Your task to perform on an android device: turn off sleep mode Image 0: 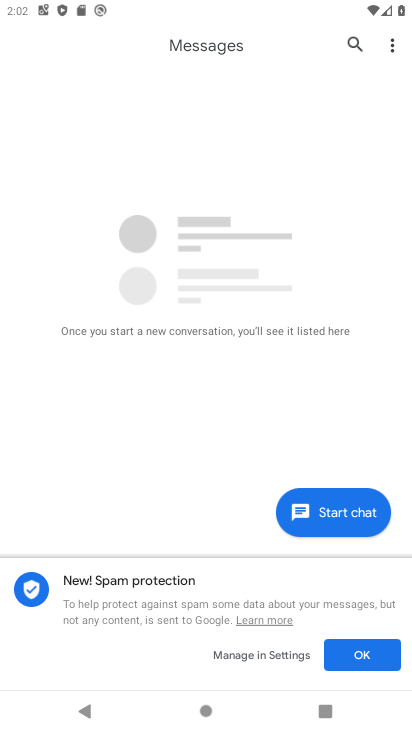
Step 0: press home button
Your task to perform on an android device: turn off sleep mode Image 1: 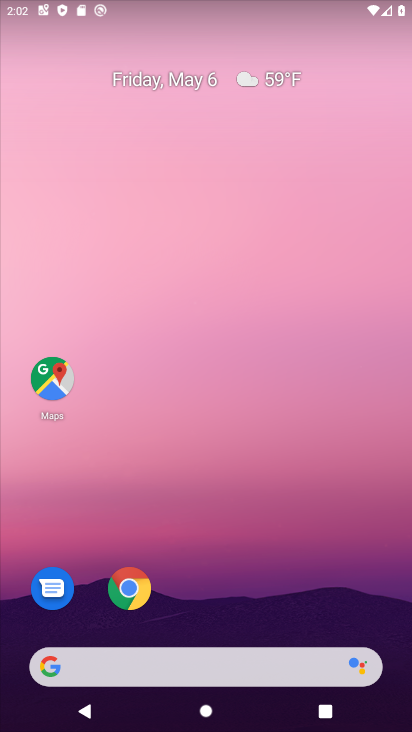
Step 1: drag from (261, 628) to (234, 79)
Your task to perform on an android device: turn off sleep mode Image 2: 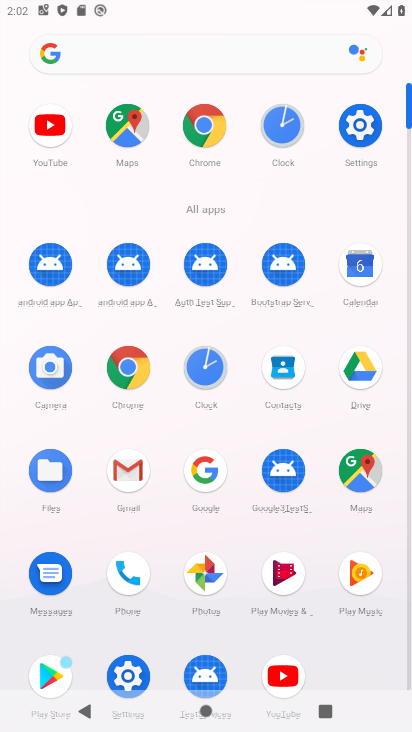
Step 2: click (366, 115)
Your task to perform on an android device: turn off sleep mode Image 3: 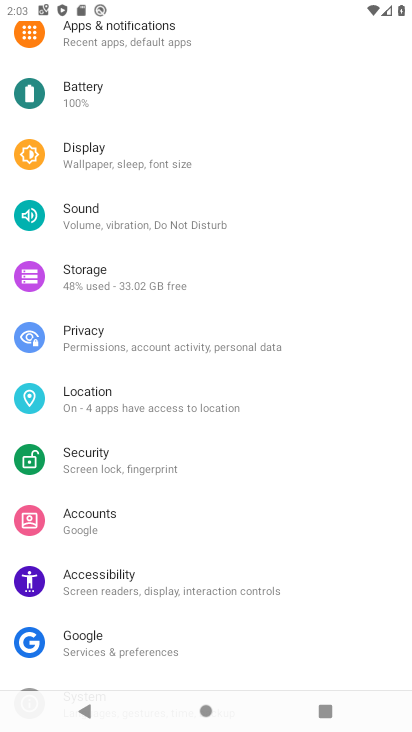
Step 3: task complete